Your task to perform on an android device: turn on sleep mode Image 0: 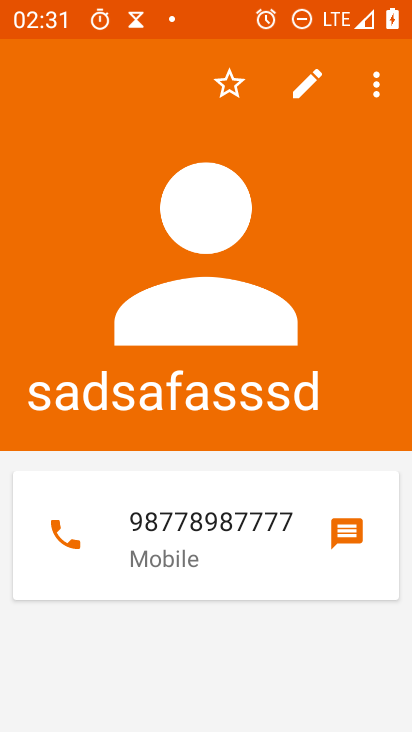
Step 0: press home button
Your task to perform on an android device: turn on sleep mode Image 1: 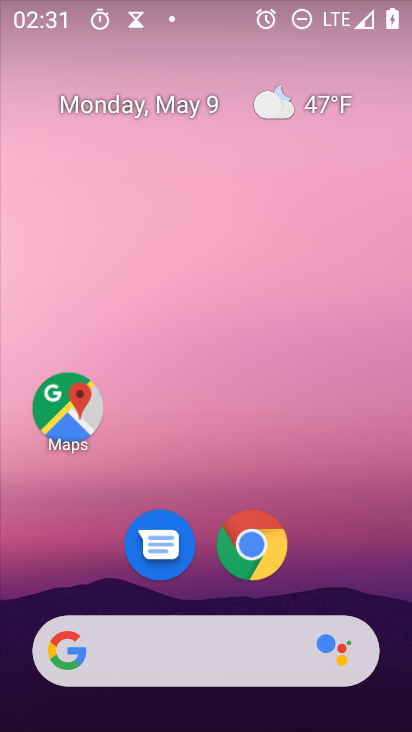
Step 1: drag from (316, 623) to (312, 28)
Your task to perform on an android device: turn on sleep mode Image 2: 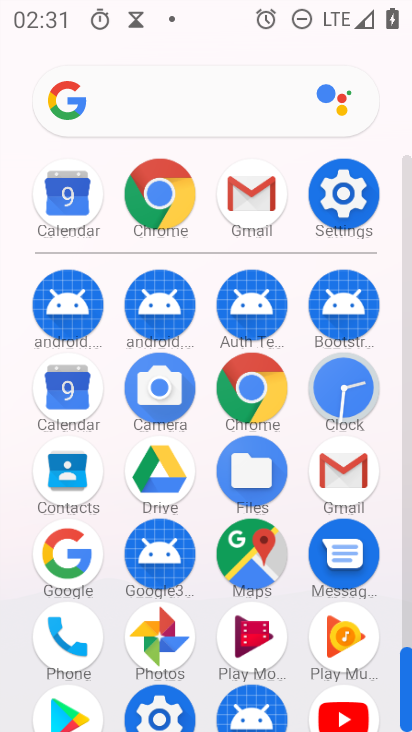
Step 2: click (328, 181)
Your task to perform on an android device: turn on sleep mode Image 3: 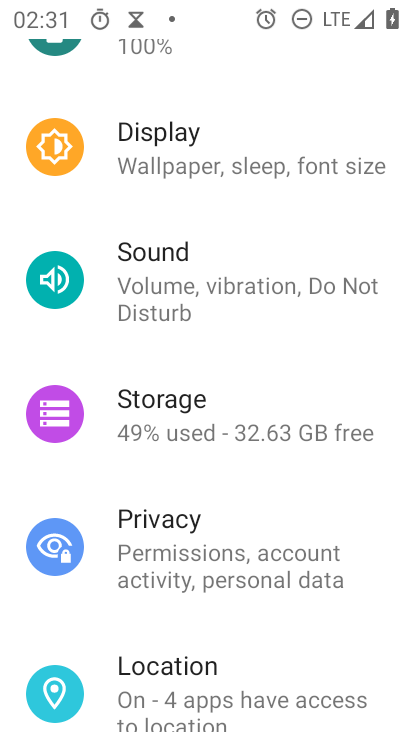
Step 3: task complete